Your task to perform on an android device: What's the weather today? Image 0: 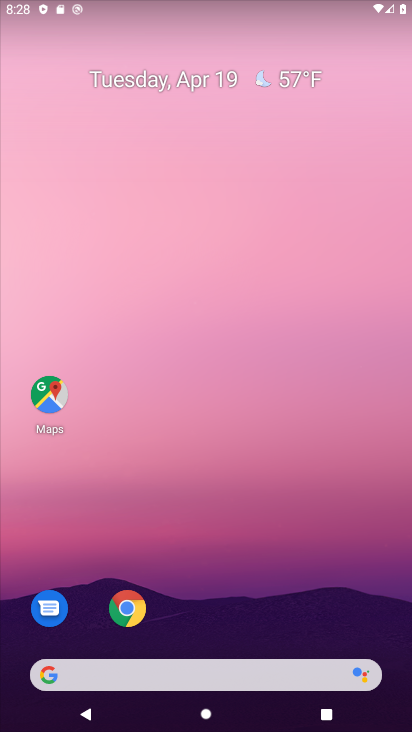
Step 0: drag from (306, 461) to (329, 120)
Your task to perform on an android device: What's the weather today? Image 1: 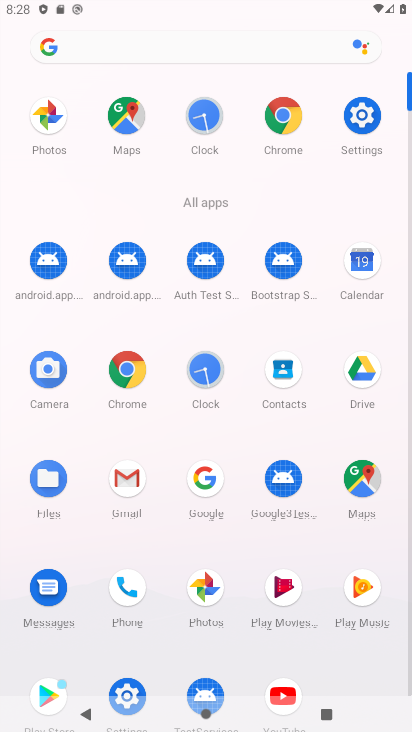
Step 1: click (206, 483)
Your task to perform on an android device: What's the weather today? Image 2: 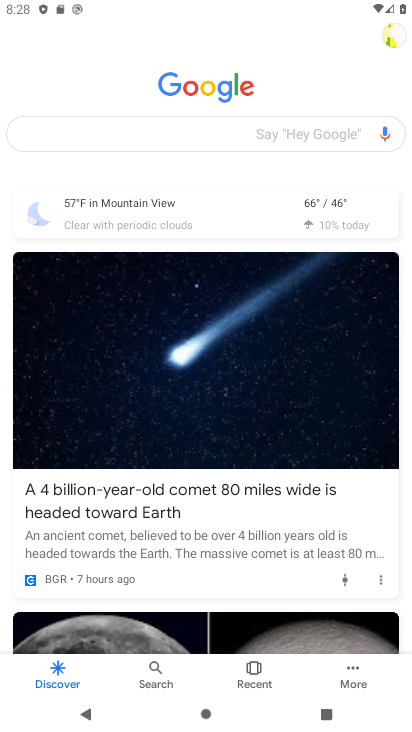
Step 2: click (158, 143)
Your task to perform on an android device: What's the weather today? Image 3: 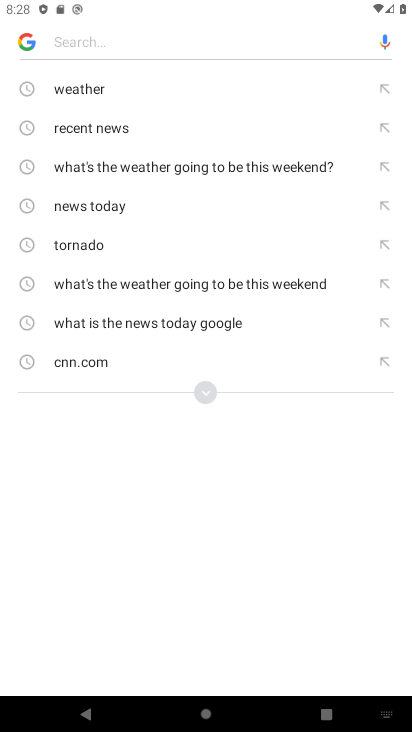
Step 3: click (130, 89)
Your task to perform on an android device: What's the weather today? Image 4: 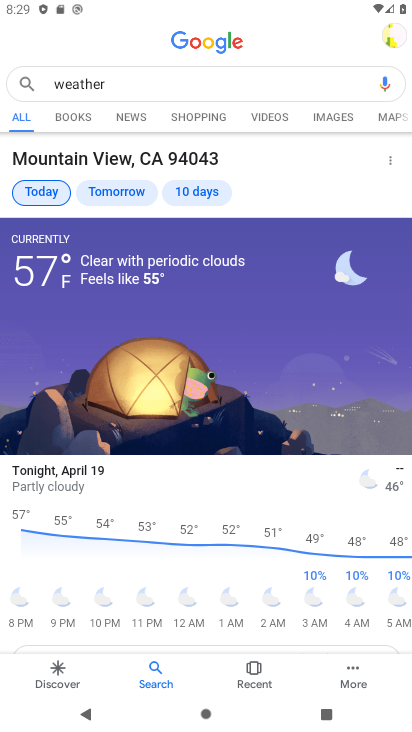
Step 4: task complete